Your task to perform on an android device: move a message to another label in the gmail app Image 0: 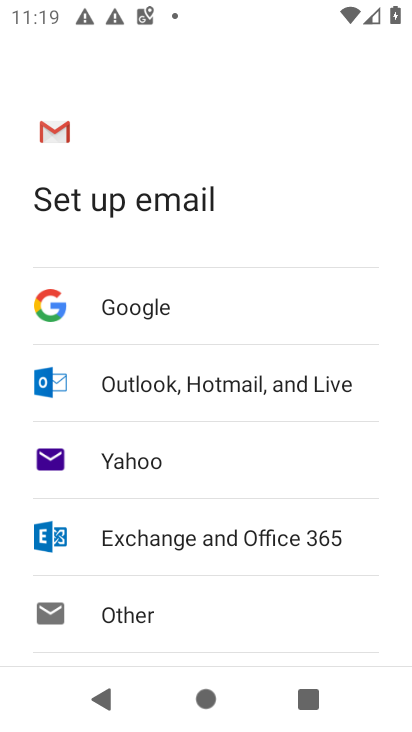
Step 0: press home button
Your task to perform on an android device: move a message to another label in the gmail app Image 1: 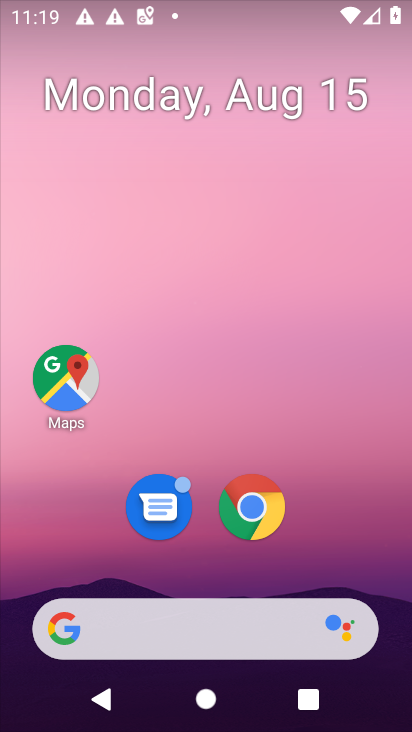
Step 1: drag from (203, 575) to (157, 143)
Your task to perform on an android device: move a message to another label in the gmail app Image 2: 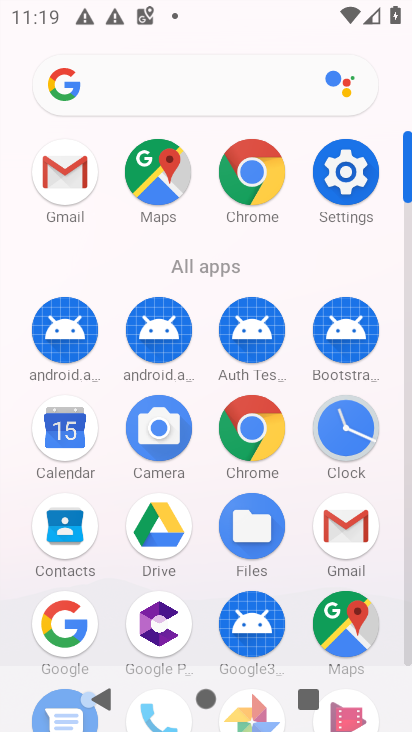
Step 2: click (67, 166)
Your task to perform on an android device: move a message to another label in the gmail app Image 3: 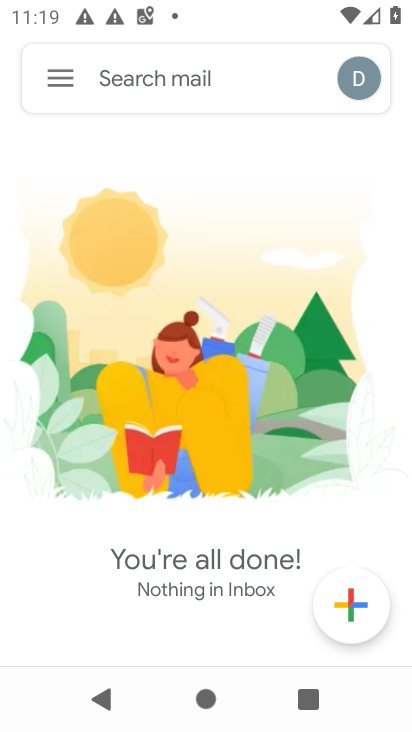
Step 3: click (51, 72)
Your task to perform on an android device: move a message to another label in the gmail app Image 4: 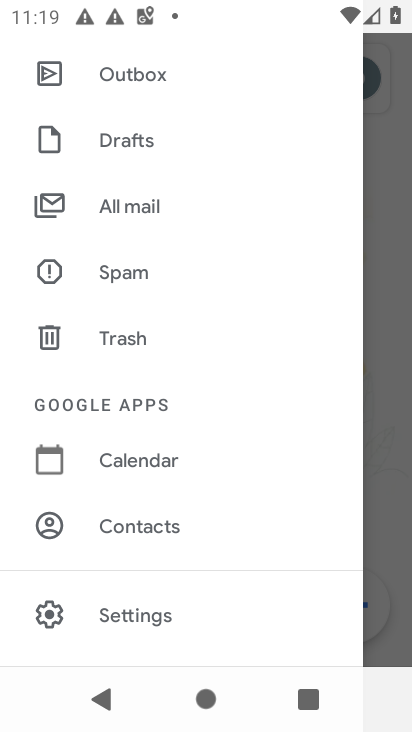
Step 4: click (129, 202)
Your task to perform on an android device: move a message to another label in the gmail app Image 5: 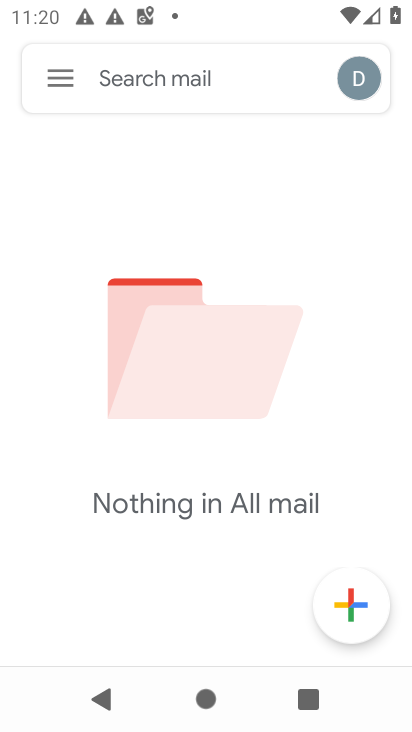
Step 5: task complete